Your task to perform on an android device: Go to Wikipedia Image 0: 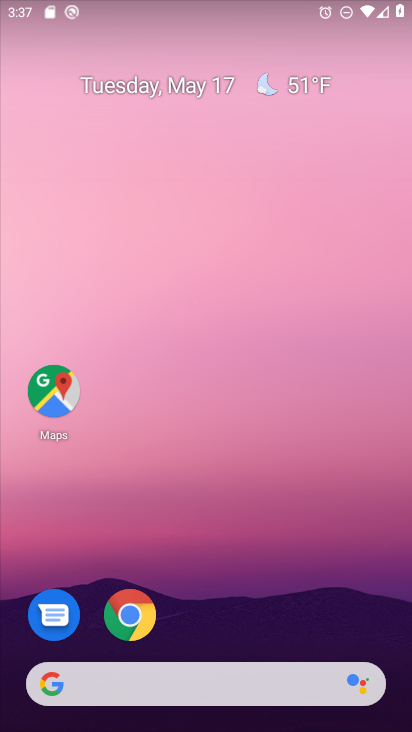
Step 0: click (130, 613)
Your task to perform on an android device: Go to Wikipedia Image 1: 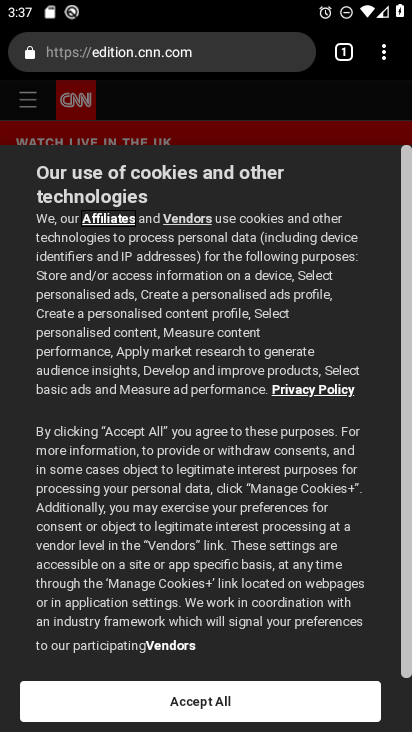
Step 1: click (200, 699)
Your task to perform on an android device: Go to Wikipedia Image 2: 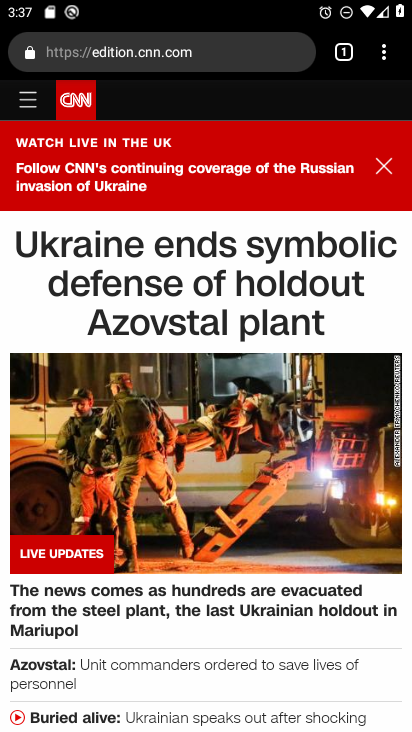
Step 2: click (345, 51)
Your task to perform on an android device: Go to Wikipedia Image 3: 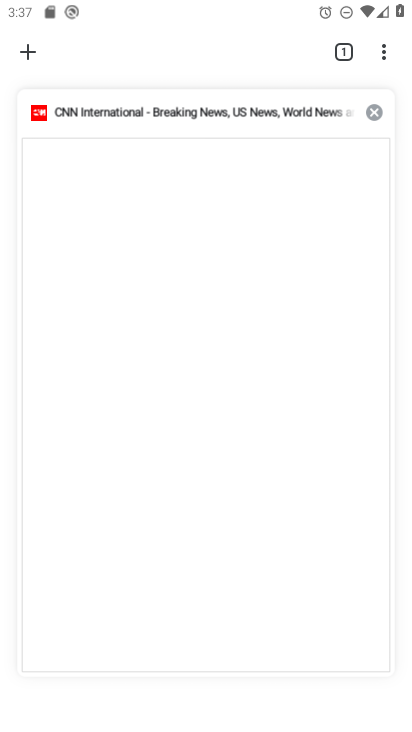
Step 3: click (375, 109)
Your task to perform on an android device: Go to Wikipedia Image 4: 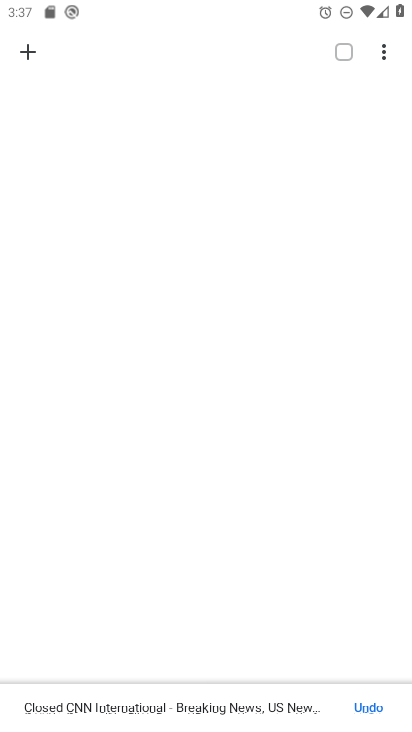
Step 4: click (33, 53)
Your task to perform on an android device: Go to Wikipedia Image 5: 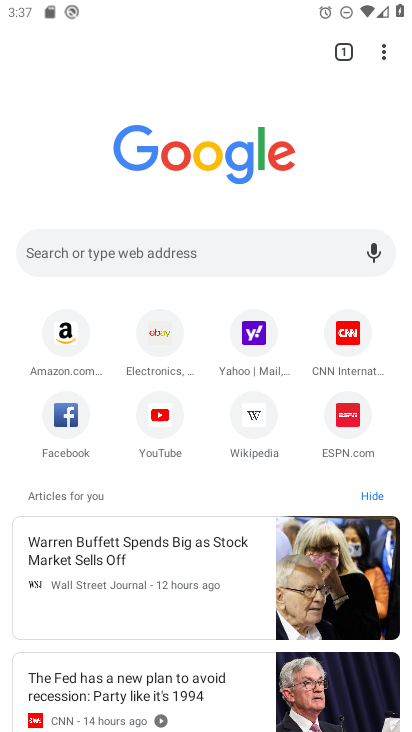
Step 5: click (257, 408)
Your task to perform on an android device: Go to Wikipedia Image 6: 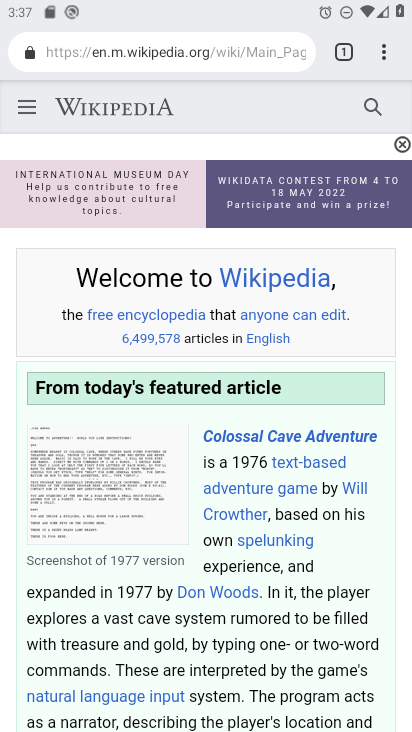
Step 6: task complete